Your task to perform on an android device: toggle airplane mode Image 0: 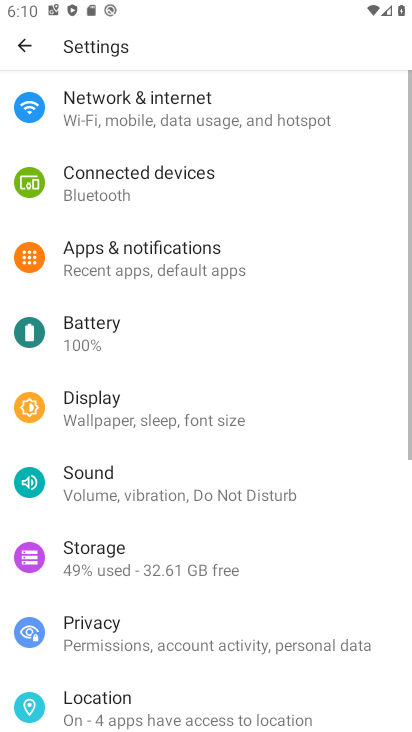
Step 0: click (228, 108)
Your task to perform on an android device: toggle airplane mode Image 1: 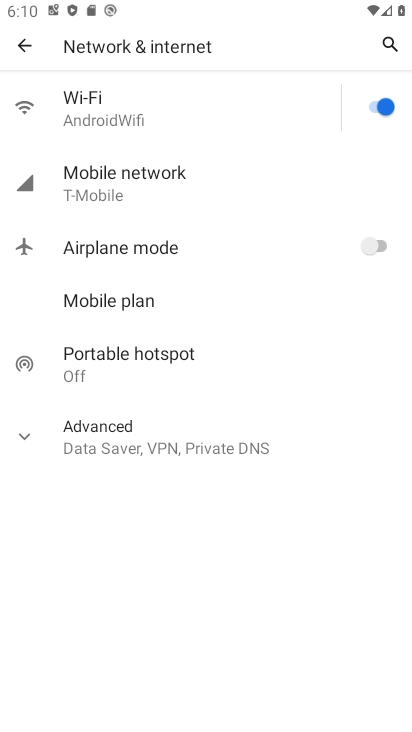
Step 1: click (365, 244)
Your task to perform on an android device: toggle airplane mode Image 2: 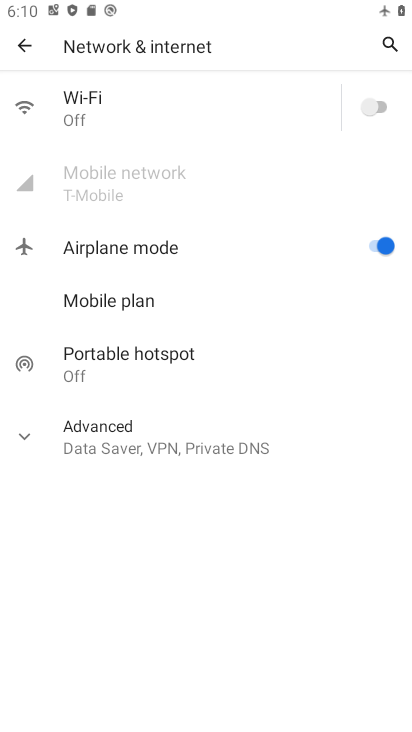
Step 2: click (19, 424)
Your task to perform on an android device: toggle airplane mode Image 3: 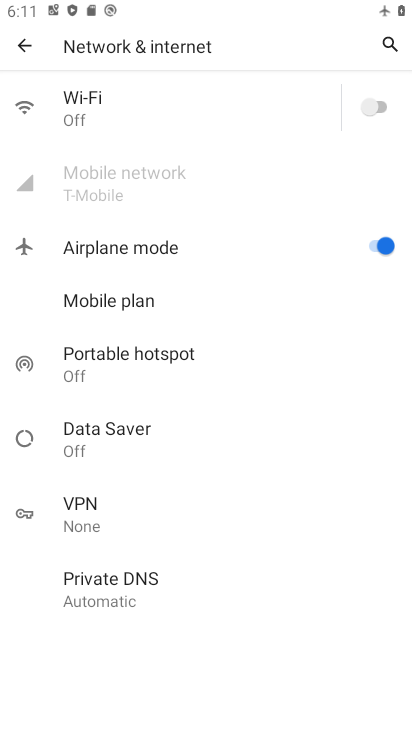
Step 3: task complete